Your task to perform on an android device: Open the map Image 0: 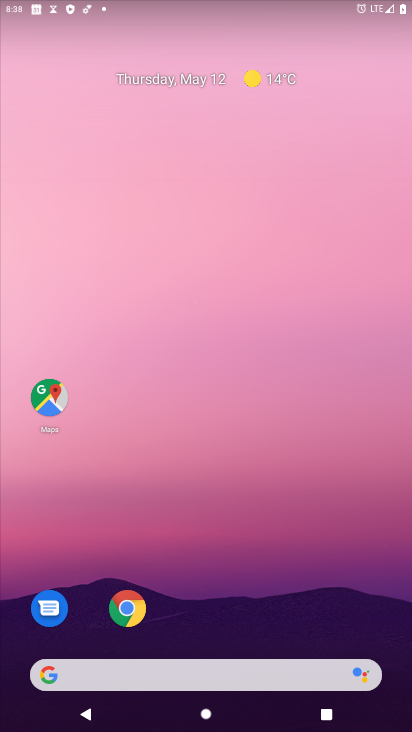
Step 0: click (52, 388)
Your task to perform on an android device: Open the map Image 1: 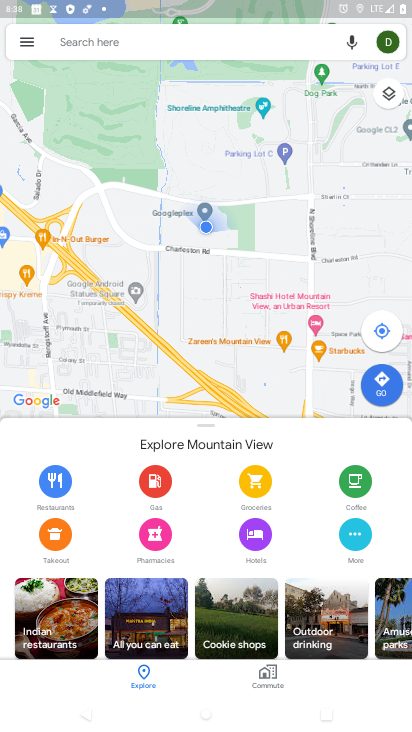
Step 1: task complete